Your task to perform on an android device: Go to settings Image 0: 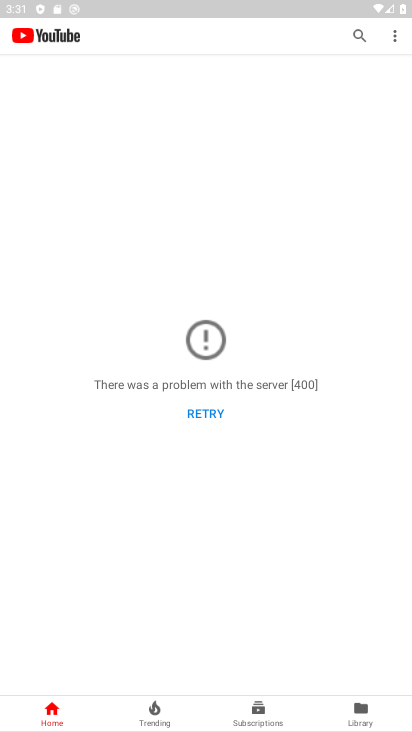
Step 0: press back button
Your task to perform on an android device: Go to settings Image 1: 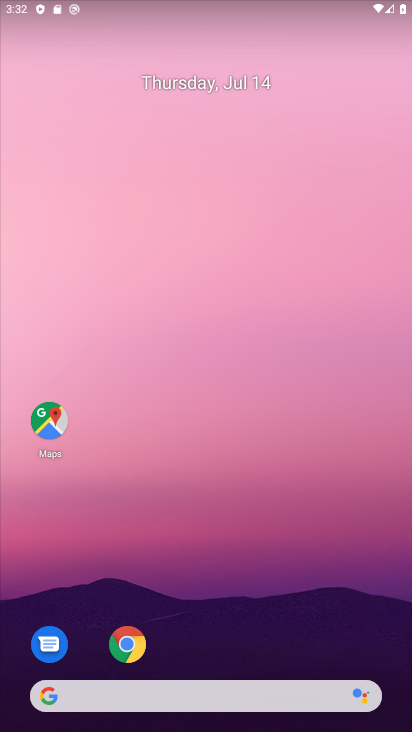
Step 1: drag from (282, 530) to (248, 246)
Your task to perform on an android device: Go to settings Image 2: 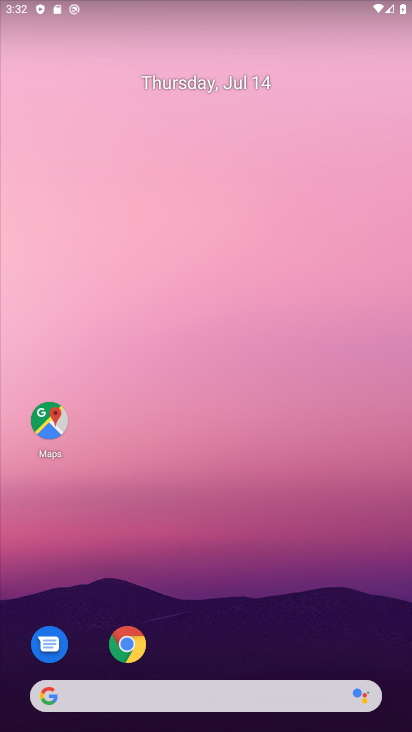
Step 2: drag from (200, 611) to (200, 109)
Your task to perform on an android device: Go to settings Image 3: 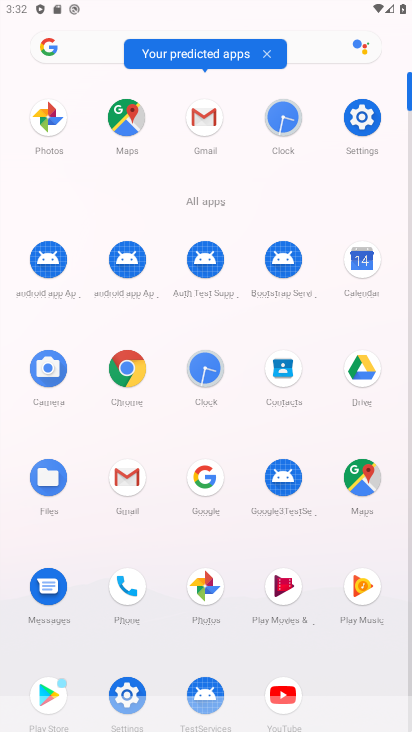
Step 3: click (352, 136)
Your task to perform on an android device: Go to settings Image 4: 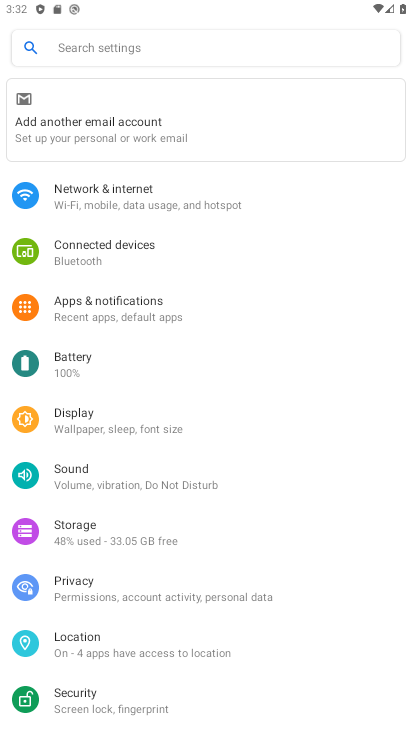
Step 4: task complete